Your task to perform on an android device: find snoozed emails in the gmail app Image 0: 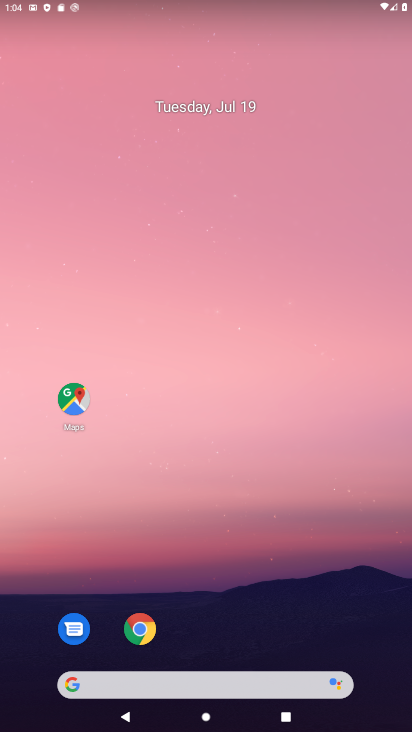
Step 0: drag from (178, 600) to (220, 42)
Your task to perform on an android device: find snoozed emails in the gmail app Image 1: 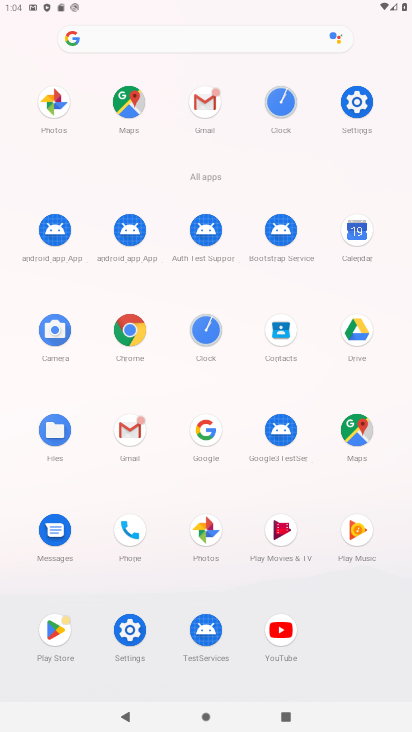
Step 1: click (209, 111)
Your task to perform on an android device: find snoozed emails in the gmail app Image 2: 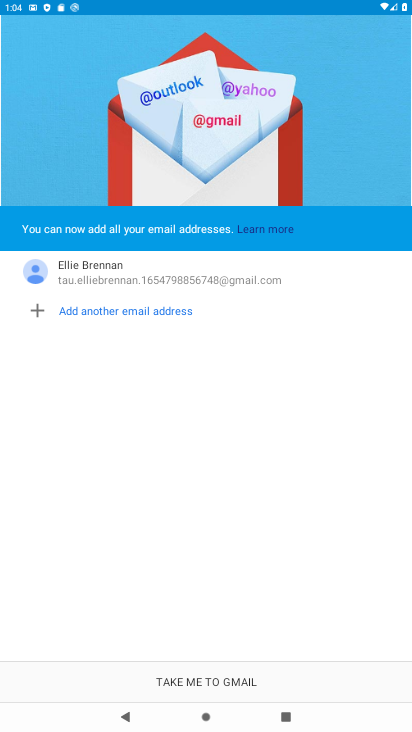
Step 2: click (174, 686)
Your task to perform on an android device: find snoozed emails in the gmail app Image 3: 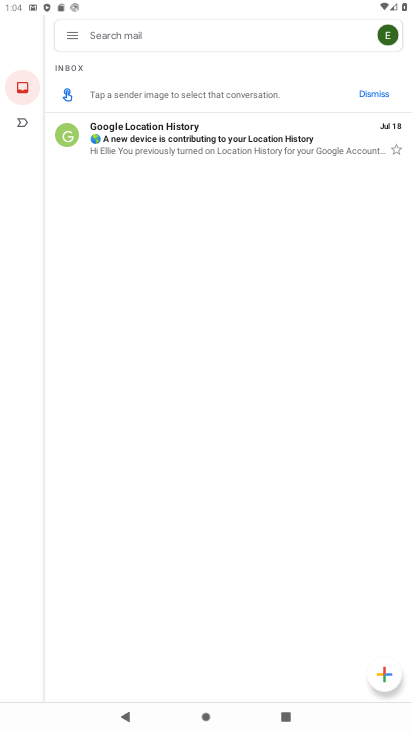
Step 3: click (70, 32)
Your task to perform on an android device: find snoozed emails in the gmail app Image 4: 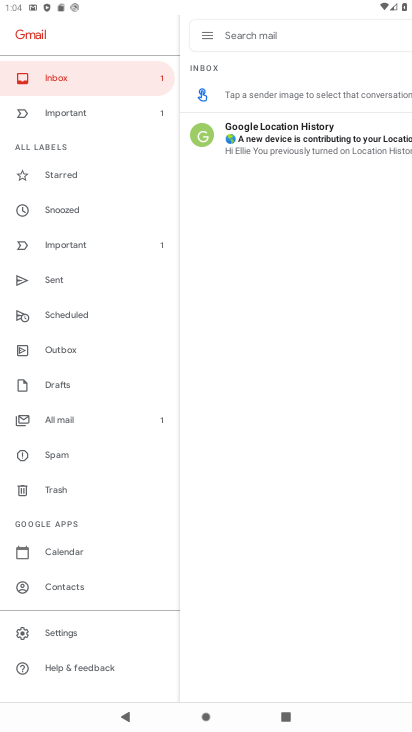
Step 4: click (66, 207)
Your task to perform on an android device: find snoozed emails in the gmail app Image 5: 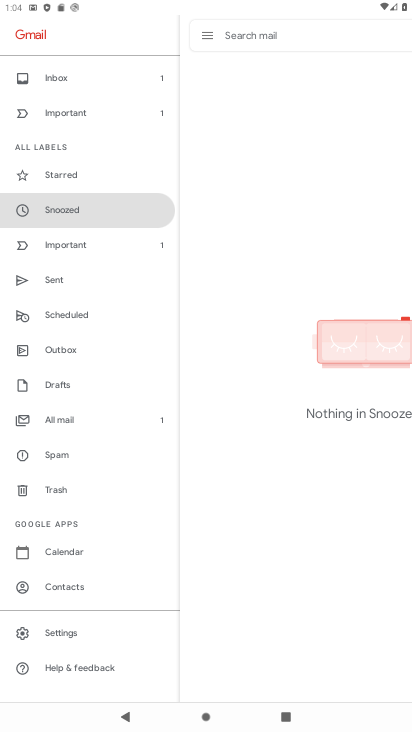
Step 5: task complete